Your task to perform on an android device: turn off data saver in the chrome app Image 0: 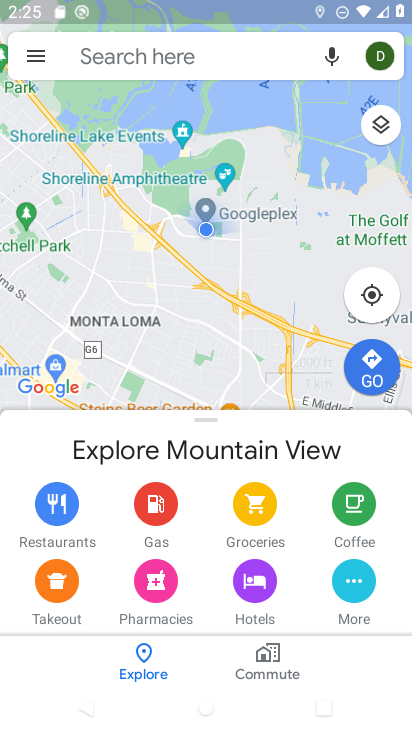
Step 0: press home button
Your task to perform on an android device: turn off data saver in the chrome app Image 1: 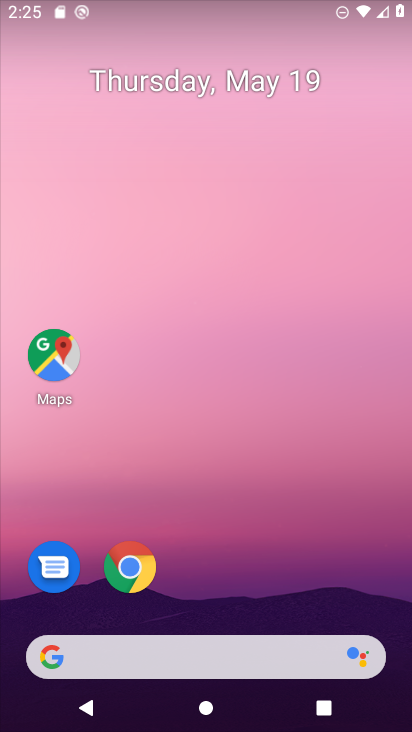
Step 1: click (147, 564)
Your task to perform on an android device: turn off data saver in the chrome app Image 2: 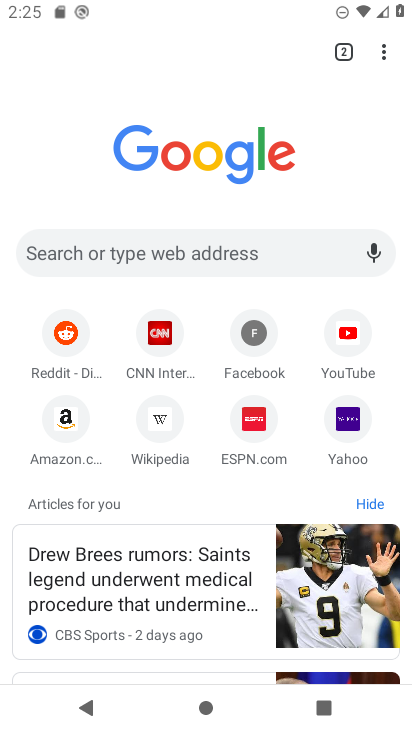
Step 2: click (380, 53)
Your task to perform on an android device: turn off data saver in the chrome app Image 3: 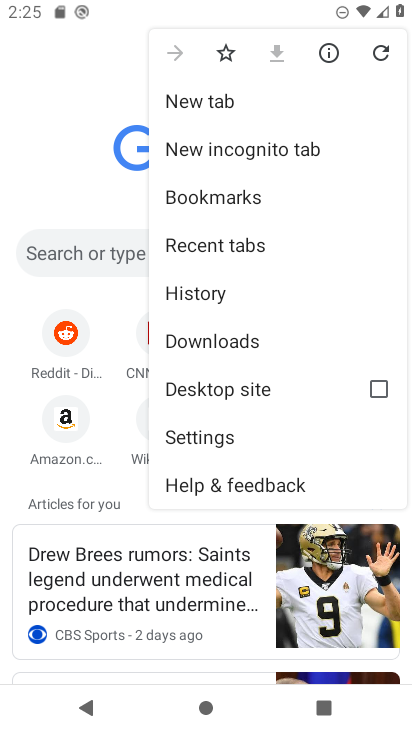
Step 3: click (227, 438)
Your task to perform on an android device: turn off data saver in the chrome app Image 4: 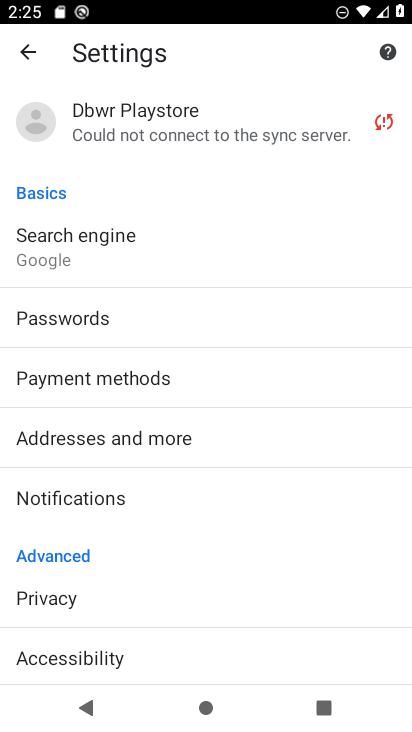
Step 4: drag from (227, 568) to (239, 237)
Your task to perform on an android device: turn off data saver in the chrome app Image 5: 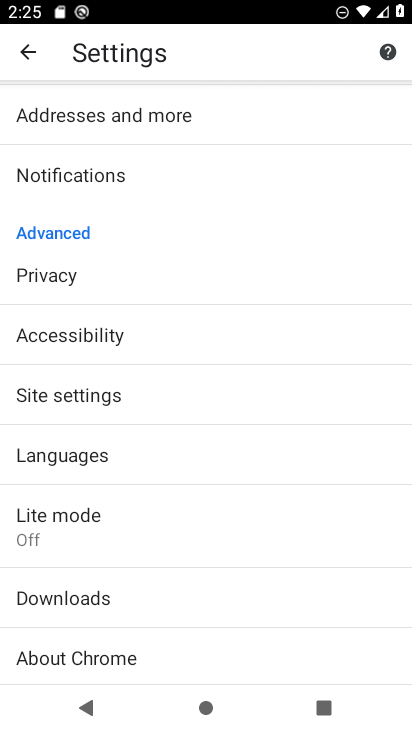
Step 5: click (158, 522)
Your task to perform on an android device: turn off data saver in the chrome app Image 6: 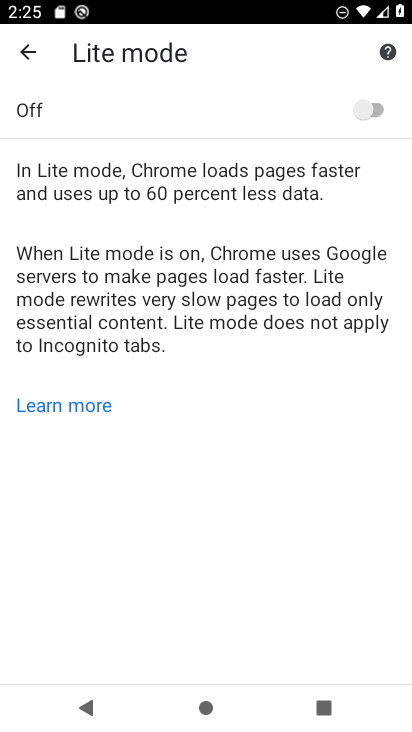
Step 6: task complete